Your task to perform on an android device: add a label to a message in the gmail app Image 0: 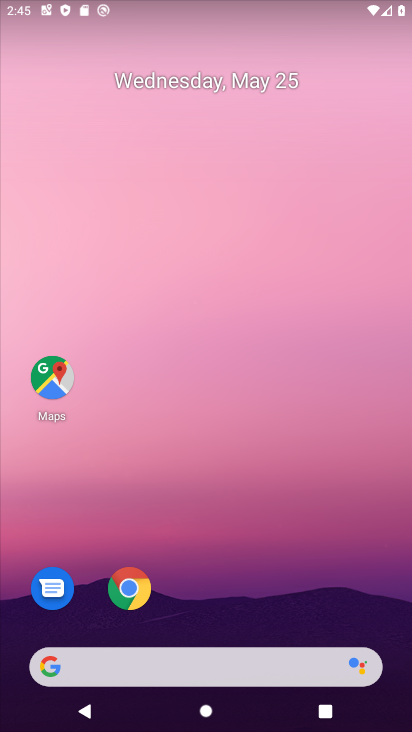
Step 0: drag from (244, 682) to (285, 95)
Your task to perform on an android device: add a label to a message in the gmail app Image 1: 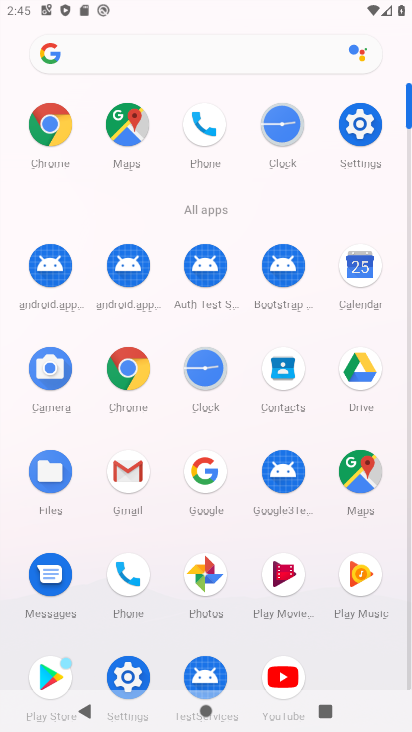
Step 1: click (134, 476)
Your task to perform on an android device: add a label to a message in the gmail app Image 2: 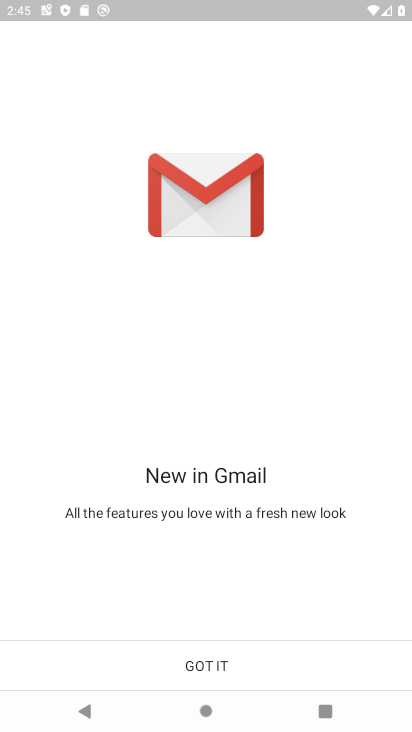
Step 2: click (209, 653)
Your task to perform on an android device: add a label to a message in the gmail app Image 3: 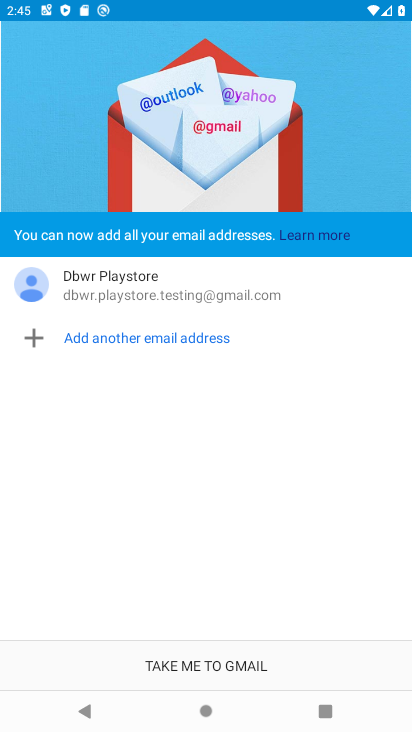
Step 3: click (231, 664)
Your task to perform on an android device: add a label to a message in the gmail app Image 4: 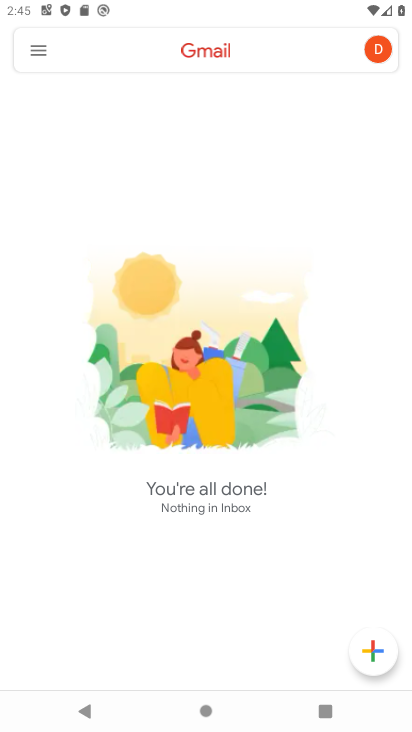
Step 4: click (38, 45)
Your task to perform on an android device: add a label to a message in the gmail app Image 5: 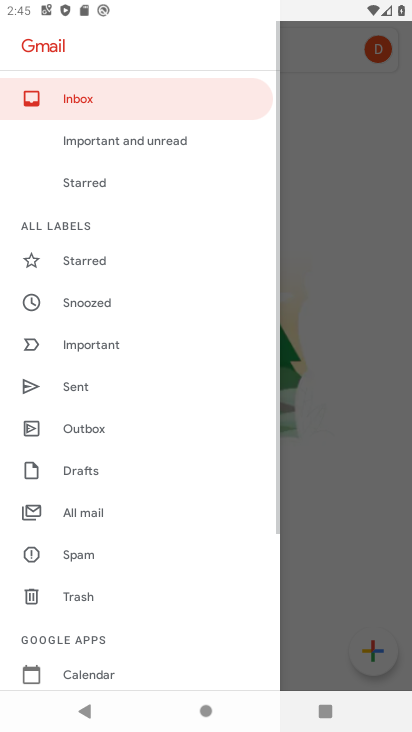
Step 5: drag from (100, 617) to (183, 486)
Your task to perform on an android device: add a label to a message in the gmail app Image 6: 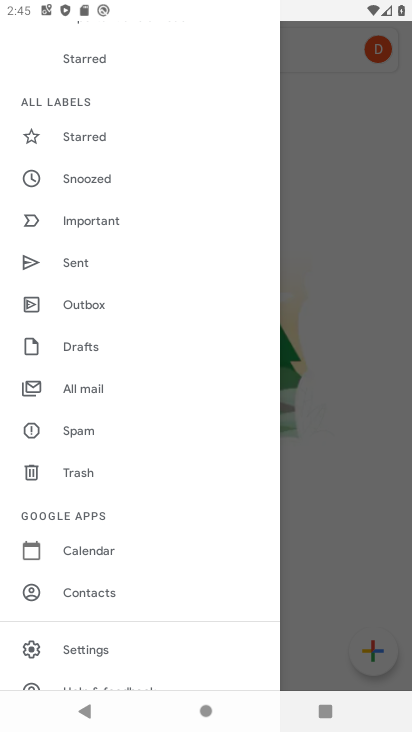
Step 6: click (107, 648)
Your task to perform on an android device: add a label to a message in the gmail app Image 7: 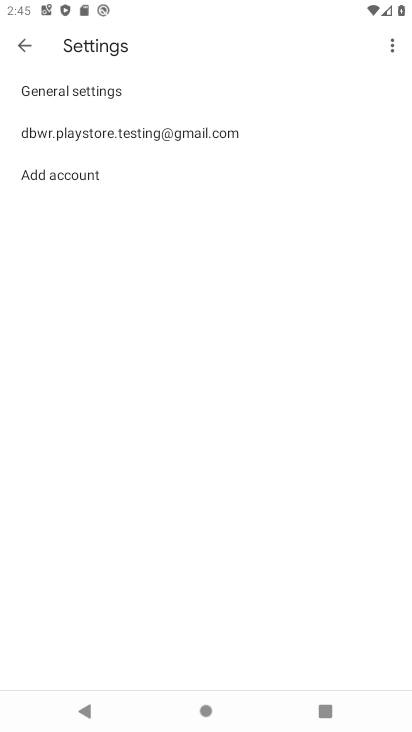
Step 7: click (108, 139)
Your task to perform on an android device: add a label to a message in the gmail app Image 8: 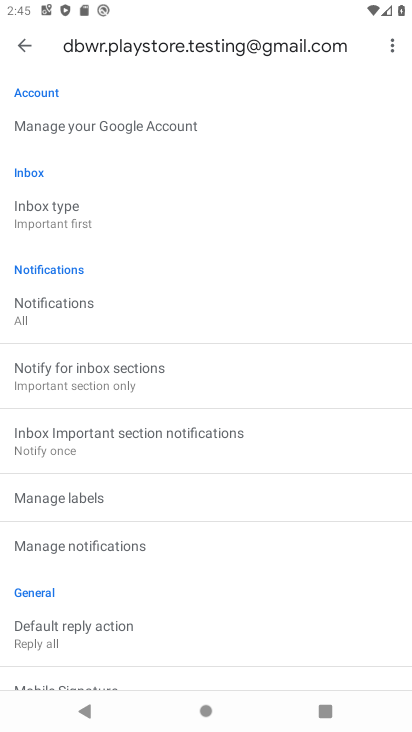
Step 8: click (95, 505)
Your task to perform on an android device: add a label to a message in the gmail app Image 9: 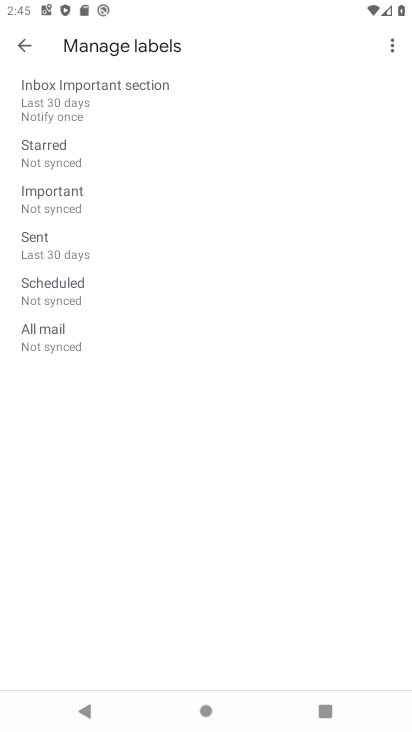
Step 9: click (84, 295)
Your task to perform on an android device: add a label to a message in the gmail app Image 10: 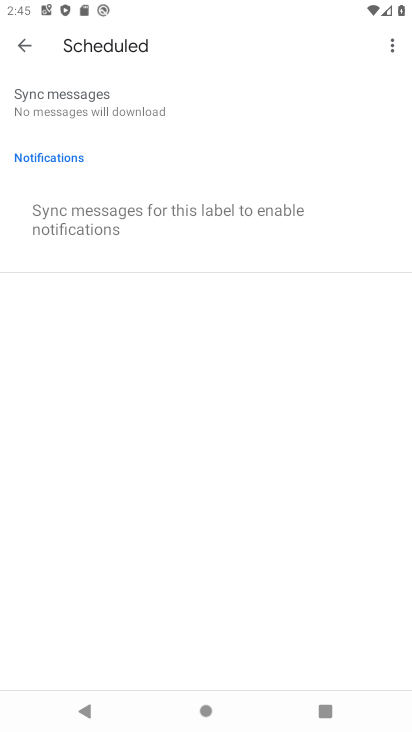
Step 10: task complete